Your task to perform on an android device: Open display settings Image 0: 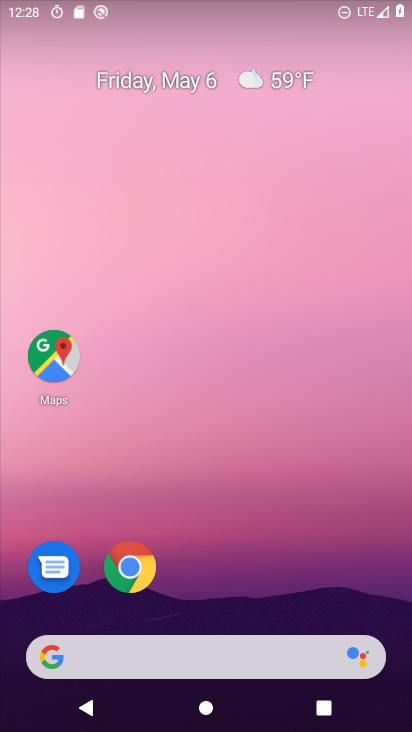
Step 0: drag from (344, 577) to (299, 1)
Your task to perform on an android device: Open display settings Image 1: 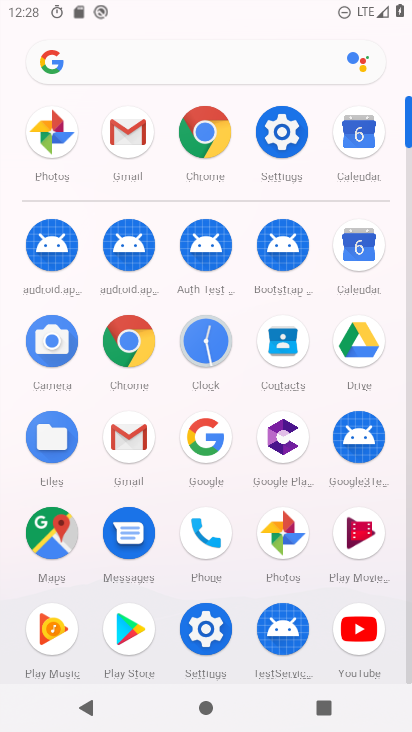
Step 1: click (290, 137)
Your task to perform on an android device: Open display settings Image 2: 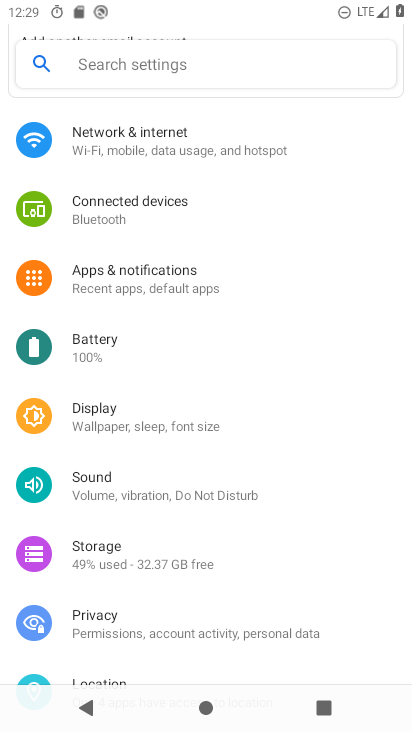
Step 2: click (101, 416)
Your task to perform on an android device: Open display settings Image 3: 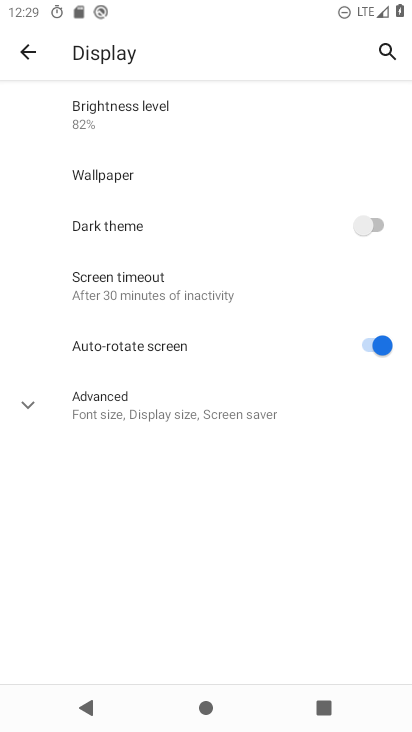
Step 3: task complete